Your task to perform on an android device: Go to internet settings Image 0: 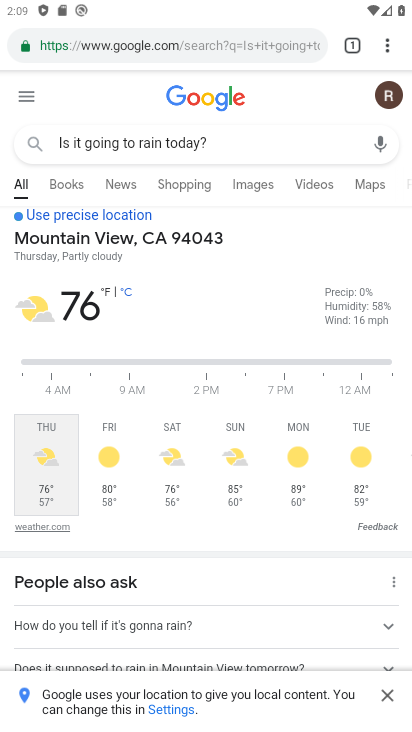
Step 0: press home button
Your task to perform on an android device: Go to internet settings Image 1: 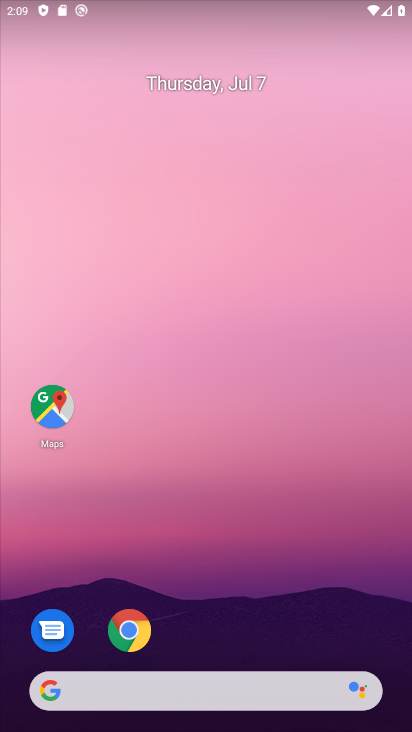
Step 1: drag from (277, 612) to (277, 327)
Your task to perform on an android device: Go to internet settings Image 2: 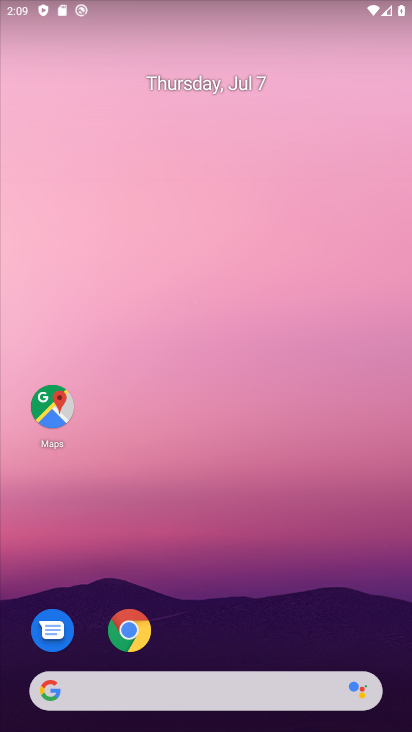
Step 2: drag from (223, 674) to (233, 302)
Your task to perform on an android device: Go to internet settings Image 3: 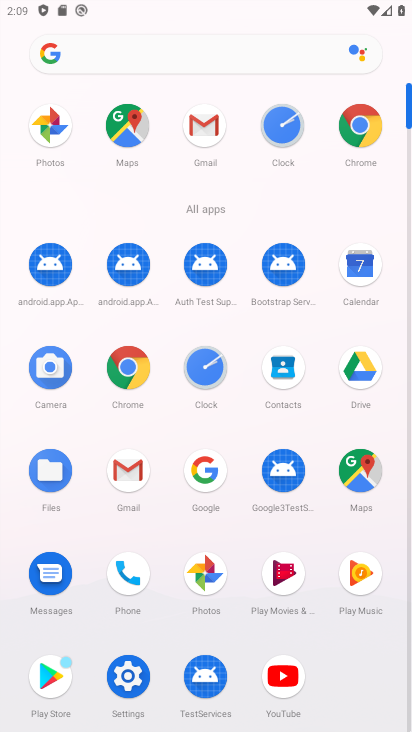
Step 3: click (138, 679)
Your task to perform on an android device: Go to internet settings Image 4: 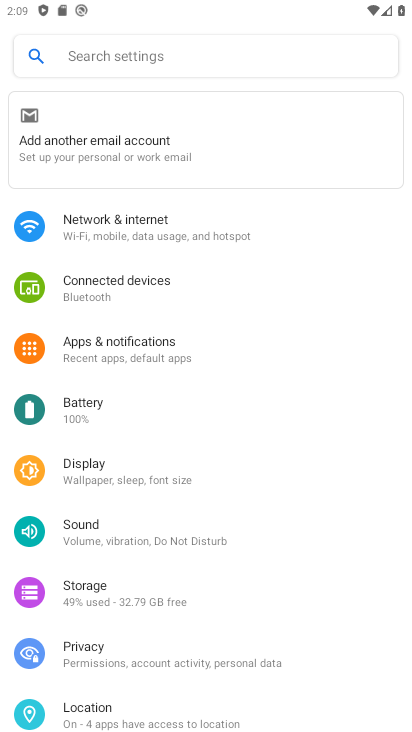
Step 4: click (146, 229)
Your task to perform on an android device: Go to internet settings Image 5: 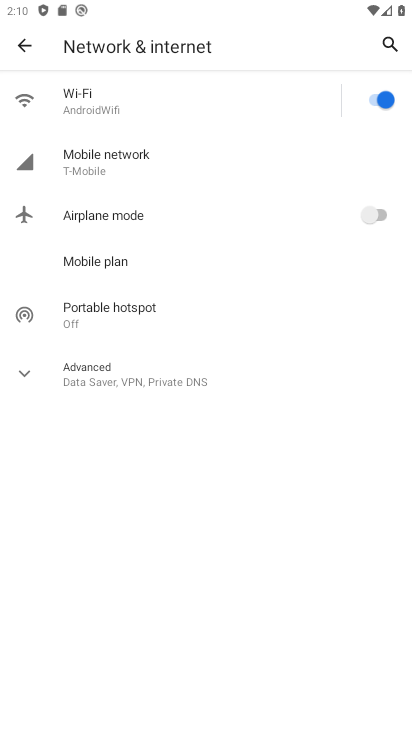
Step 5: task complete